Your task to perform on an android device: Open calendar and show me the fourth week of next month Image 0: 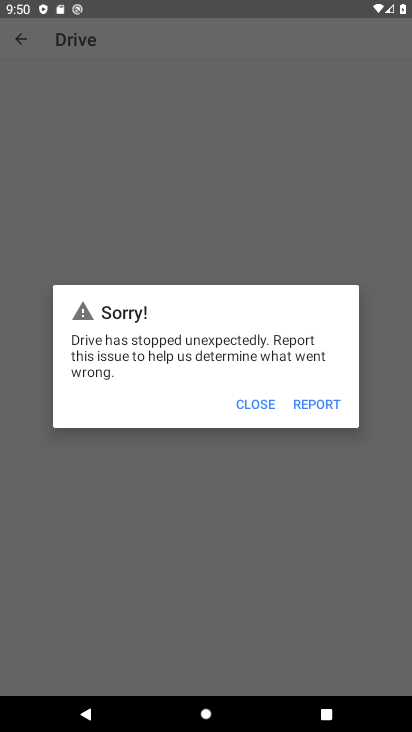
Step 0: press home button
Your task to perform on an android device: Open calendar and show me the fourth week of next month Image 1: 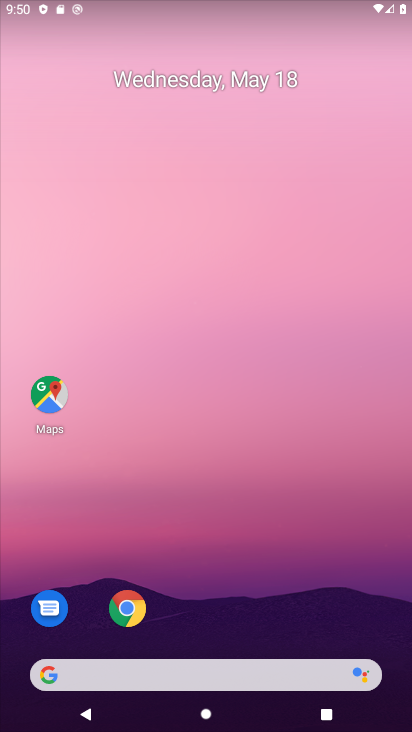
Step 1: drag from (225, 625) to (291, 88)
Your task to perform on an android device: Open calendar and show me the fourth week of next month Image 2: 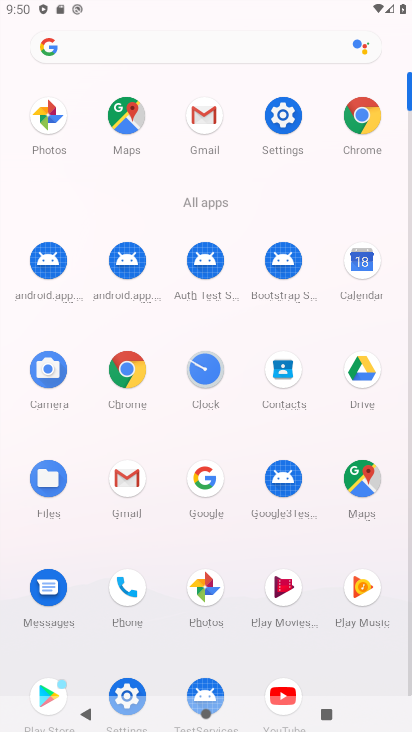
Step 2: click (378, 275)
Your task to perform on an android device: Open calendar and show me the fourth week of next month Image 3: 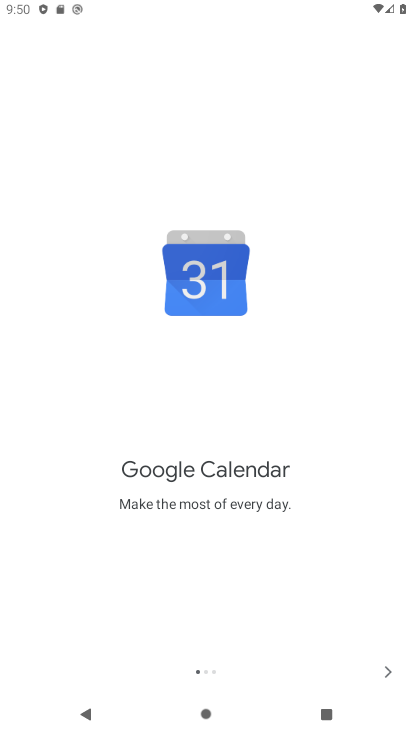
Step 3: click (385, 672)
Your task to perform on an android device: Open calendar and show me the fourth week of next month Image 4: 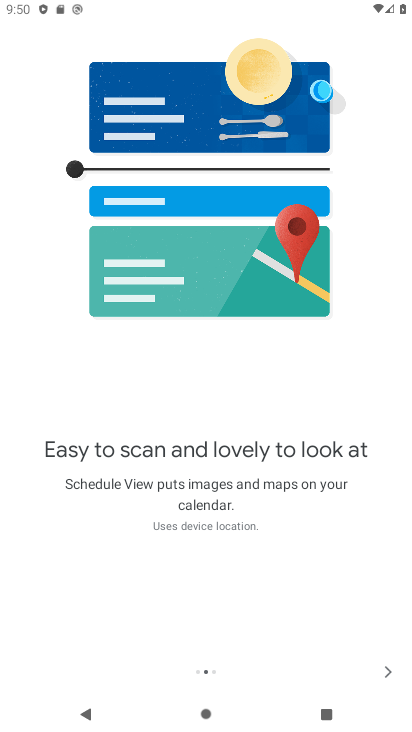
Step 4: click (385, 672)
Your task to perform on an android device: Open calendar and show me the fourth week of next month Image 5: 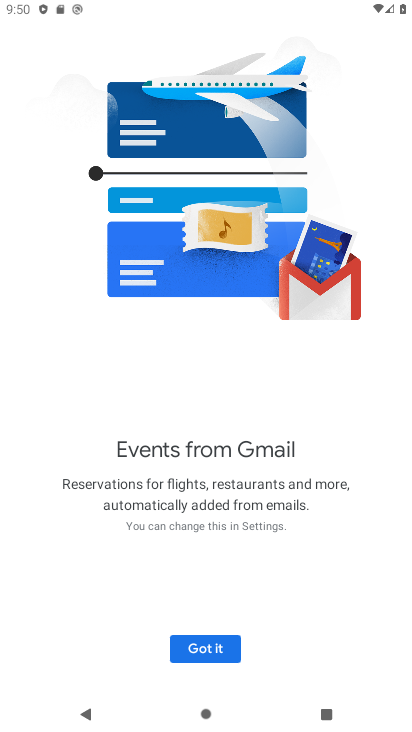
Step 5: click (233, 651)
Your task to perform on an android device: Open calendar and show me the fourth week of next month Image 6: 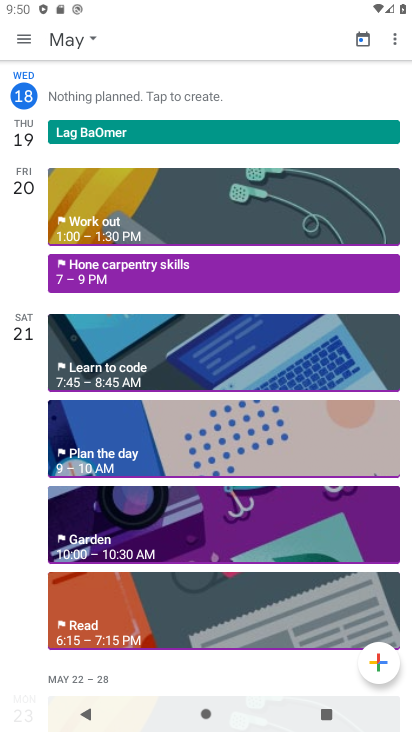
Step 6: click (26, 38)
Your task to perform on an android device: Open calendar and show me the fourth week of next month Image 7: 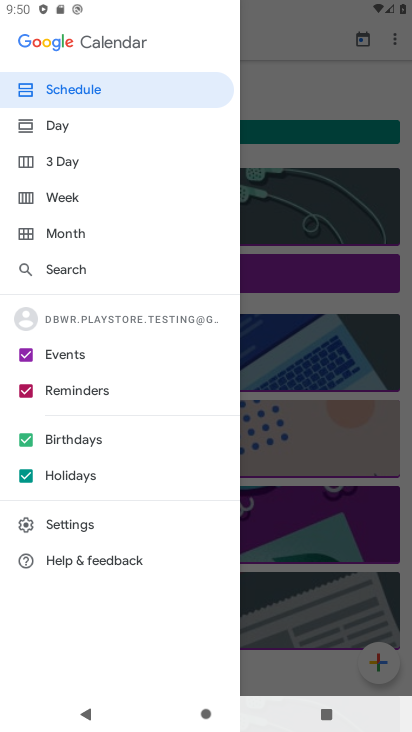
Step 7: click (65, 239)
Your task to perform on an android device: Open calendar and show me the fourth week of next month Image 8: 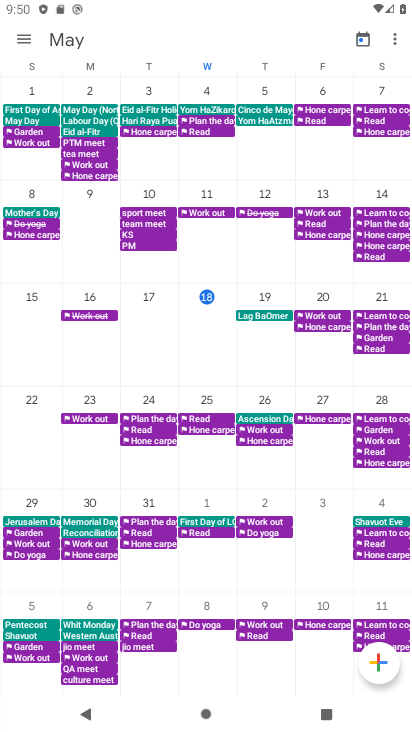
Step 8: drag from (340, 243) to (1, 194)
Your task to perform on an android device: Open calendar and show me the fourth week of next month Image 9: 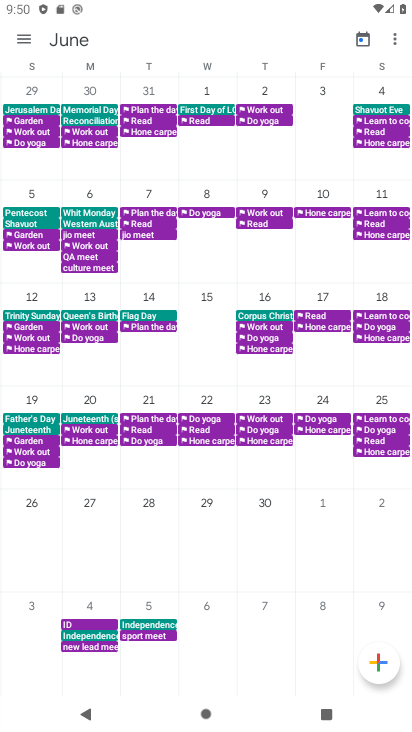
Step 9: click (25, 35)
Your task to perform on an android device: Open calendar and show me the fourth week of next month Image 10: 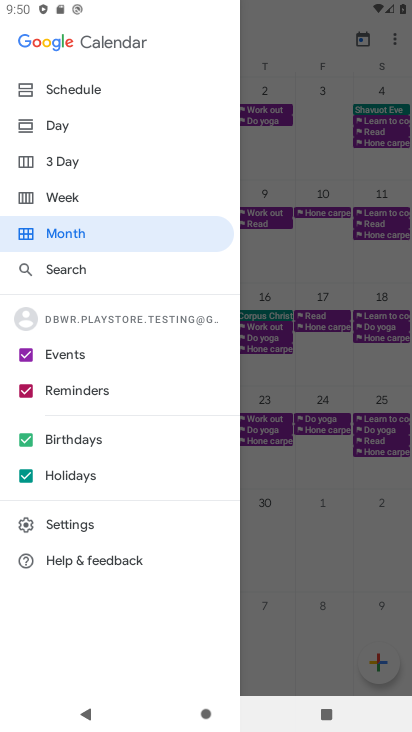
Step 10: click (69, 198)
Your task to perform on an android device: Open calendar and show me the fourth week of next month Image 11: 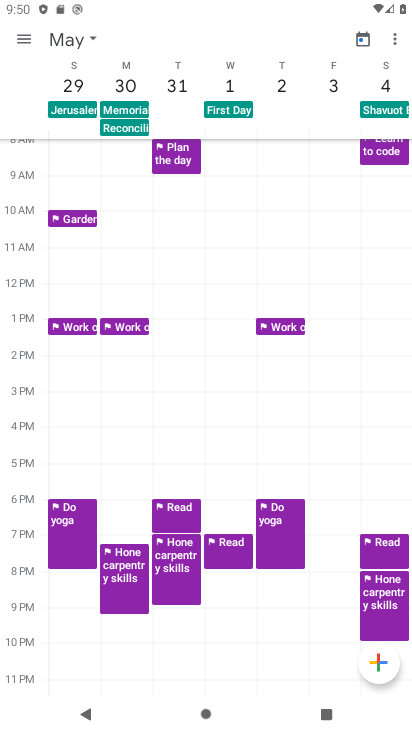
Step 11: task complete